Your task to perform on an android device: Clear the cart on newegg. Add alienware area 51 to the cart on newegg Image 0: 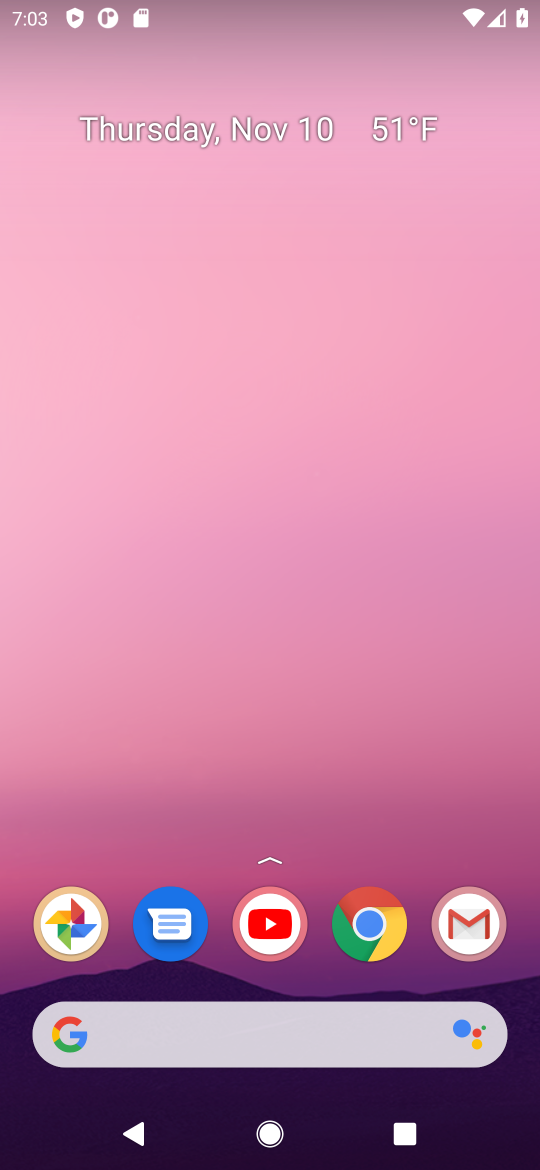
Step 0: click (390, 920)
Your task to perform on an android device: Clear the cart on newegg. Add alienware area 51 to the cart on newegg Image 1: 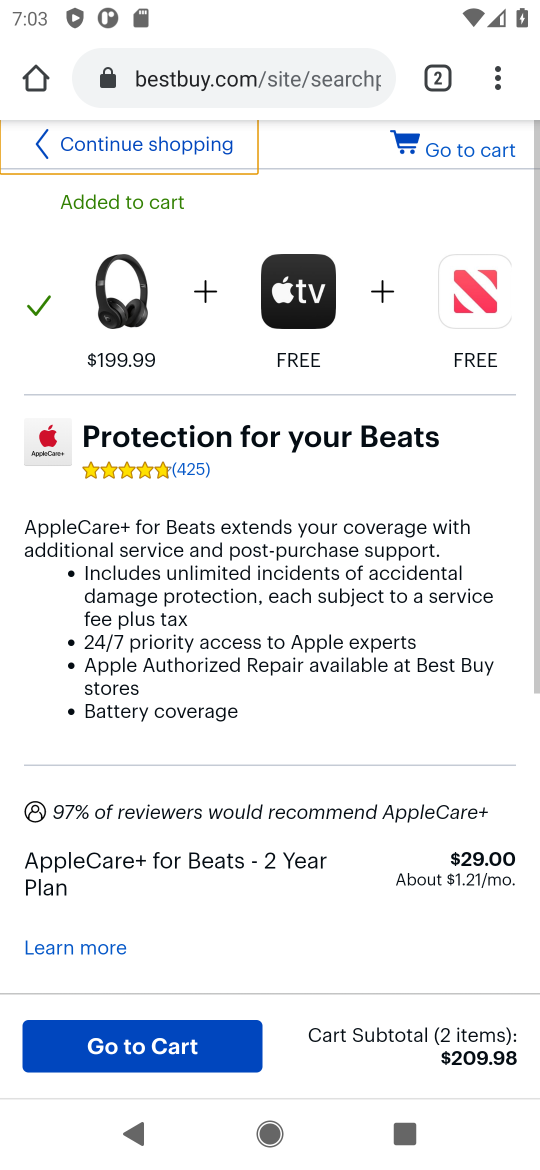
Step 1: click (257, 86)
Your task to perform on an android device: Clear the cart on newegg. Add alienware area 51 to the cart on newegg Image 2: 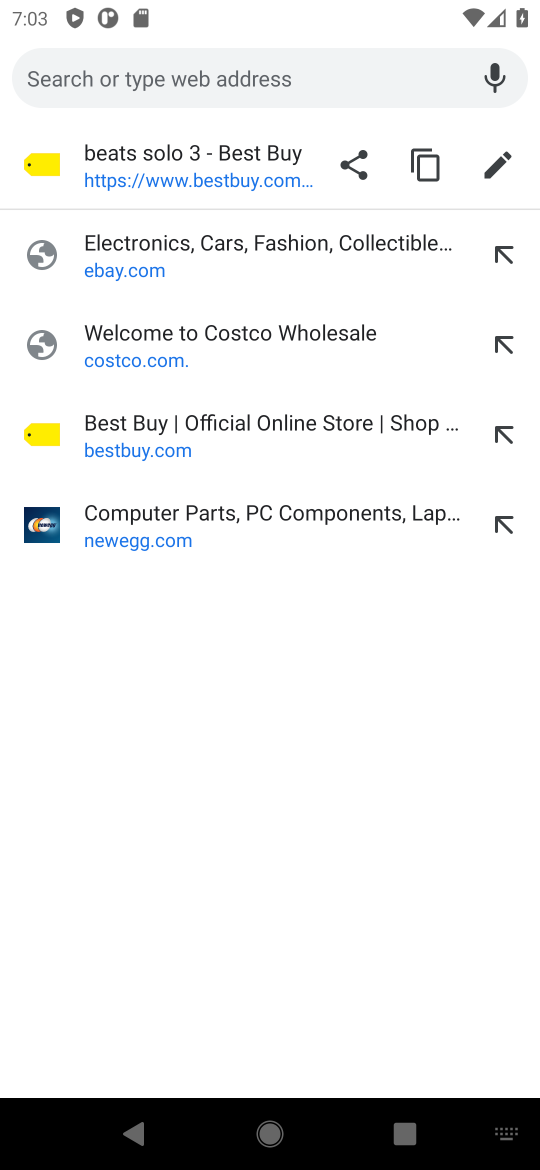
Step 2: click (119, 532)
Your task to perform on an android device: Clear the cart on newegg. Add alienware area 51 to the cart on newegg Image 3: 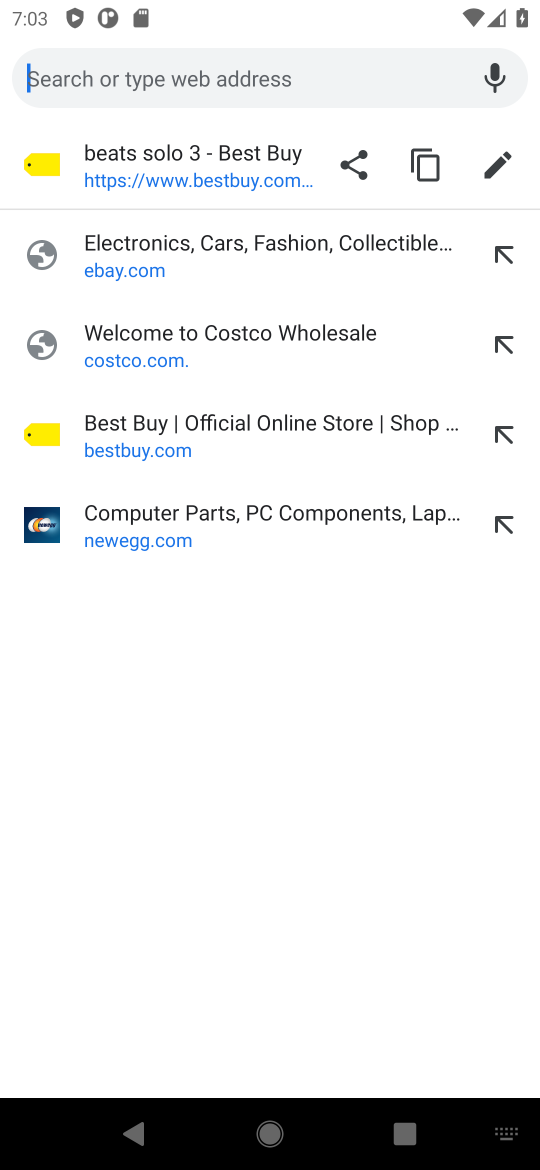
Step 3: click (119, 532)
Your task to perform on an android device: Clear the cart on newegg. Add alienware area 51 to the cart on newegg Image 4: 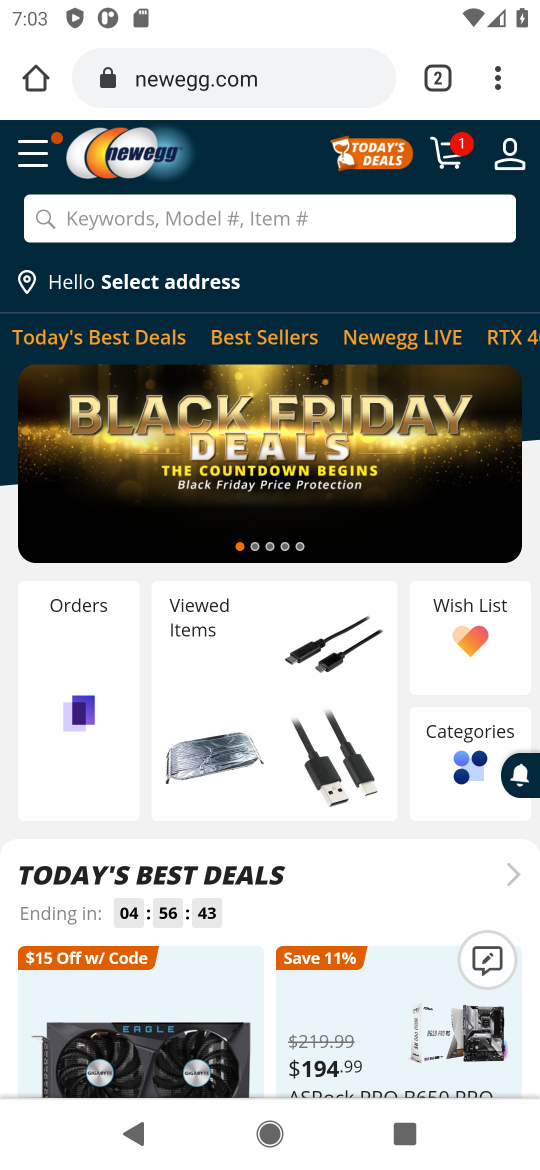
Step 4: click (451, 155)
Your task to perform on an android device: Clear the cart on newegg. Add alienware area 51 to the cart on newegg Image 5: 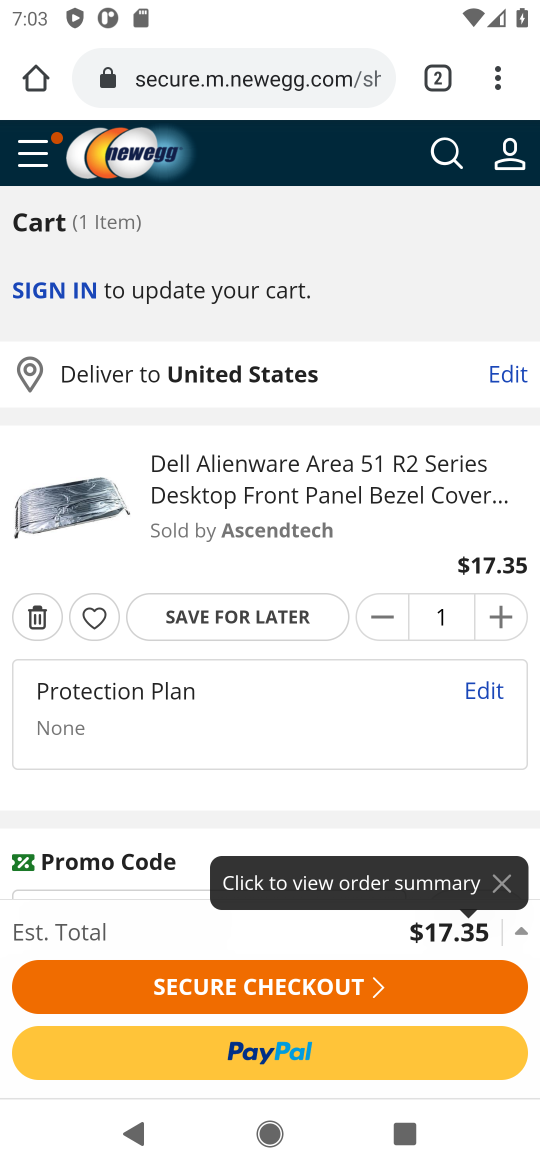
Step 5: click (33, 626)
Your task to perform on an android device: Clear the cart on newegg. Add alienware area 51 to the cart on newegg Image 6: 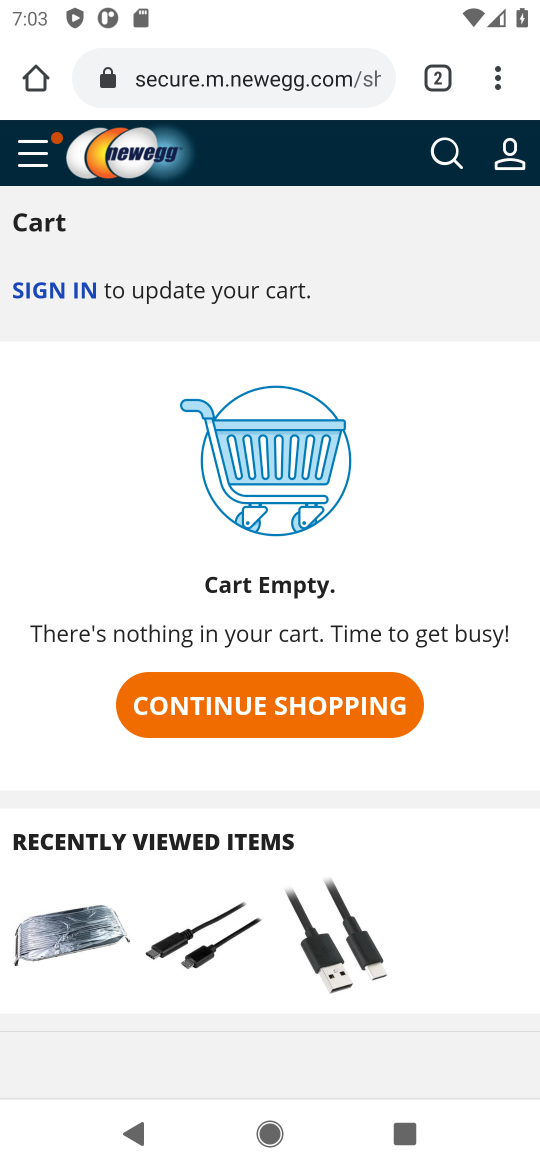
Step 6: click (252, 706)
Your task to perform on an android device: Clear the cart on newegg. Add alienware area 51 to the cart on newegg Image 7: 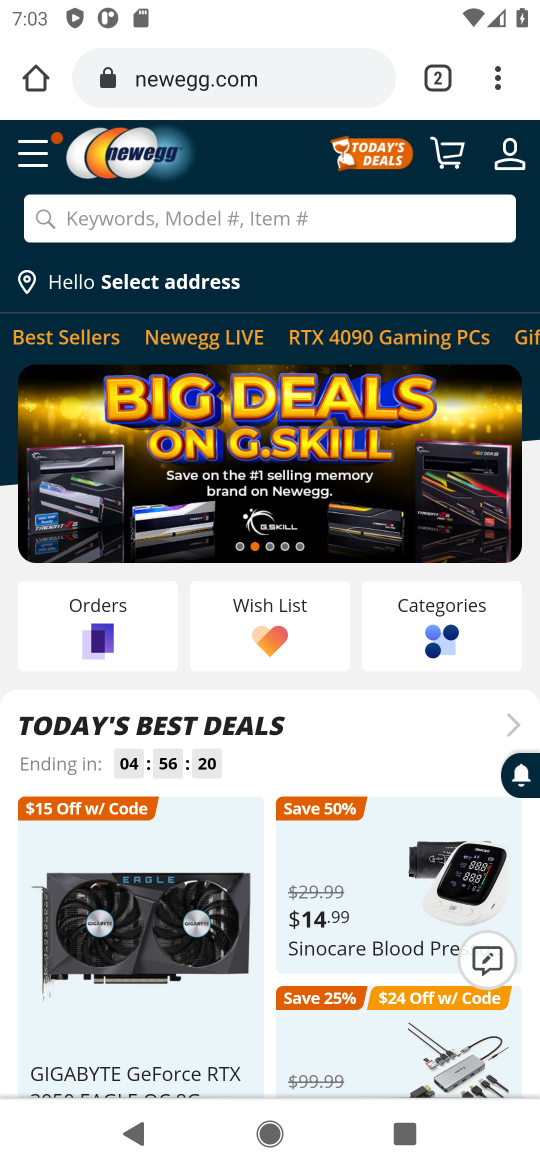
Step 7: click (337, 220)
Your task to perform on an android device: Clear the cart on newegg. Add alienware area 51 to the cart on newegg Image 8: 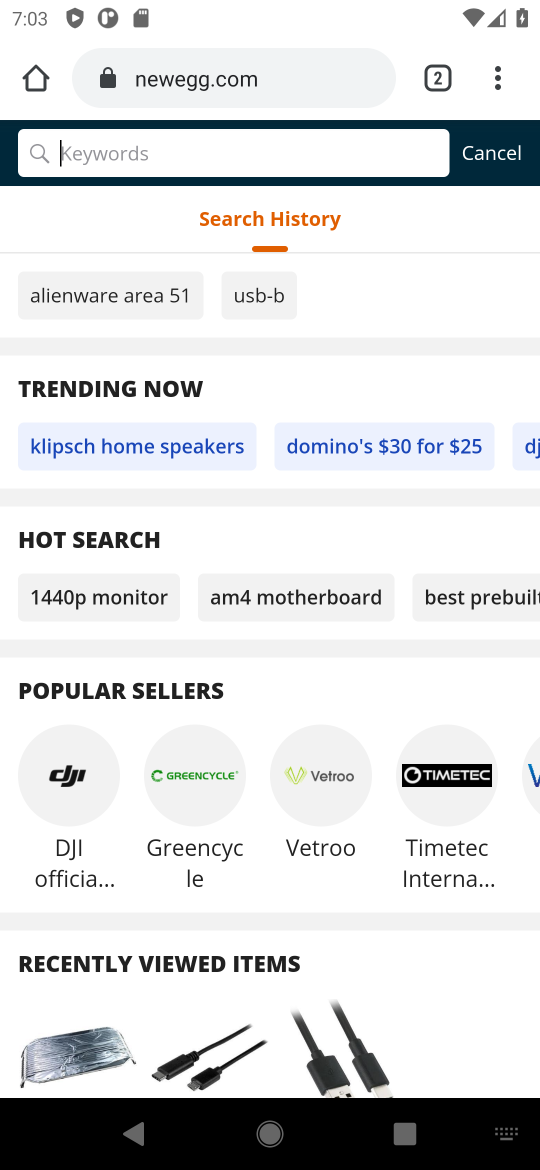
Step 8: type "alienware area 51 "
Your task to perform on an android device: Clear the cart on newegg. Add alienware area 51 to the cart on newegg Image 9: 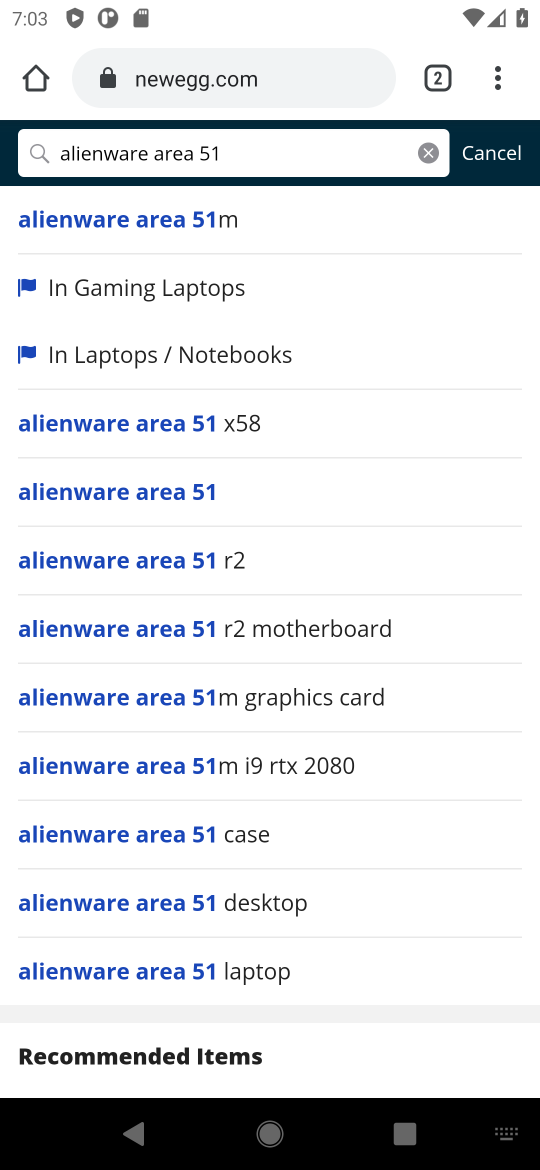
Step 9: click (150, 493)
Your task to perform on an android device: Clear the cart on newegg. Add alienware area 51 to the cart on newegg Image 10: 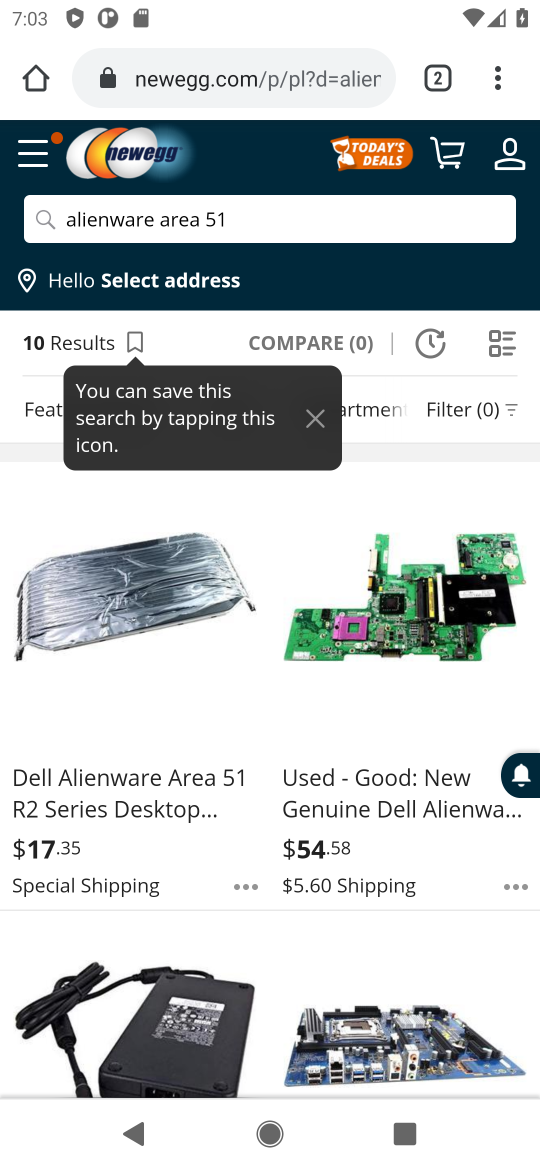
Step 10: click (125, 616)
Your task to perform on an android device: Clear the cart on newegg. Add alienware area 51 to the cart on newegg Image 11: 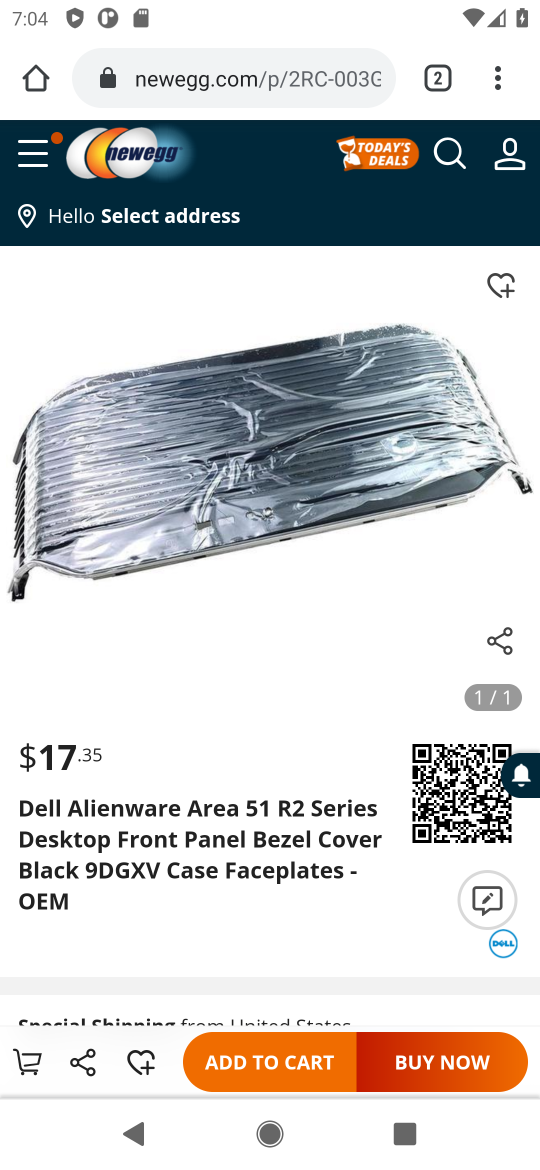
Step 11: click (269, 1057)
Your task to perform on an android device: Clear the cart on newegg. Add alienware area 51 to the cart on newegg Image 12: 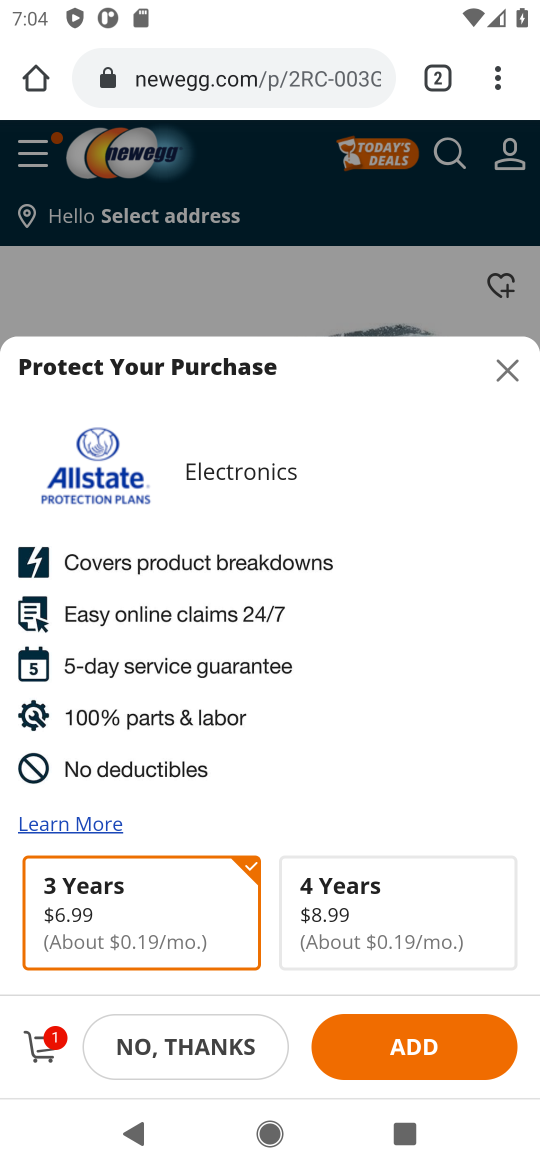
Step 12: task complete